Your task to perform on an android device: search for starred emails in the gmail app Image 0: 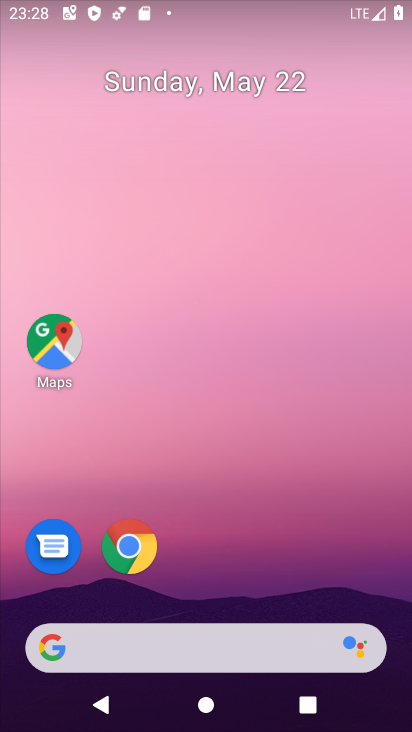
Step 0: drag from (190, 573) to (231, 51)
Your task to perform on an android device: search for starred emails in the gmail app Image 1: 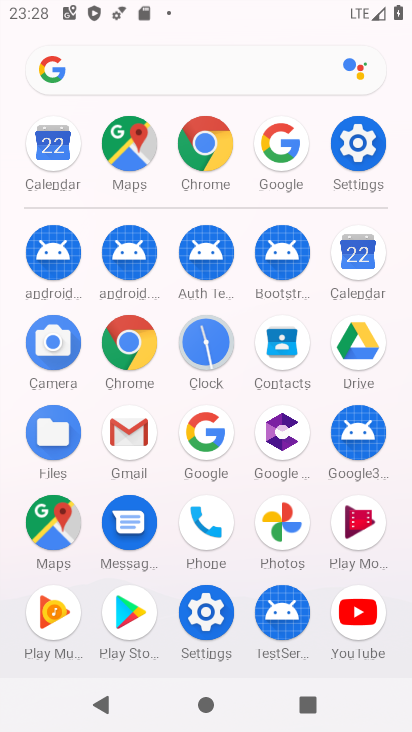
Step 1: click (109, 423)
Your task to perform on an android device: search for starred emails in the gmail app Image 2: 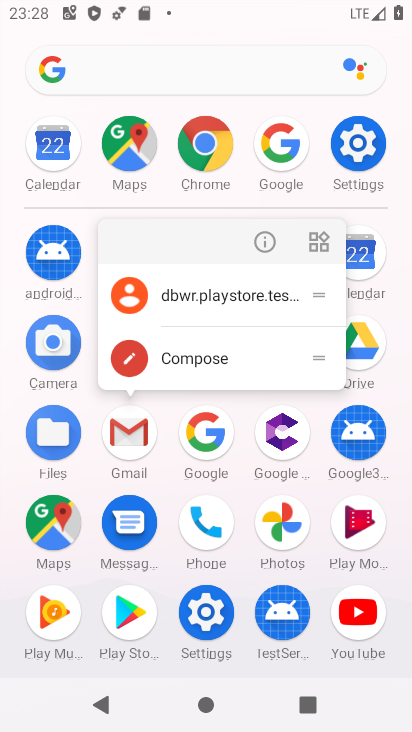
Step 2: click (260, 238)
Your task to perform on an android device: search for starred emails in the gmail app Image 3: 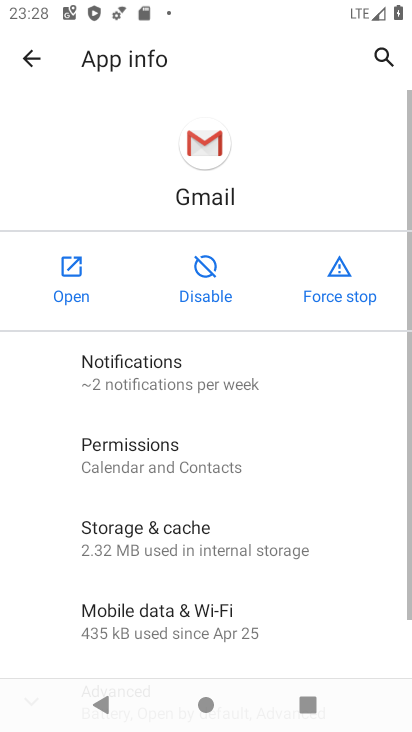
Step 3: click (80, 271)
Your task to perform on an android device: search for starred emails in the gmail app Image 4: 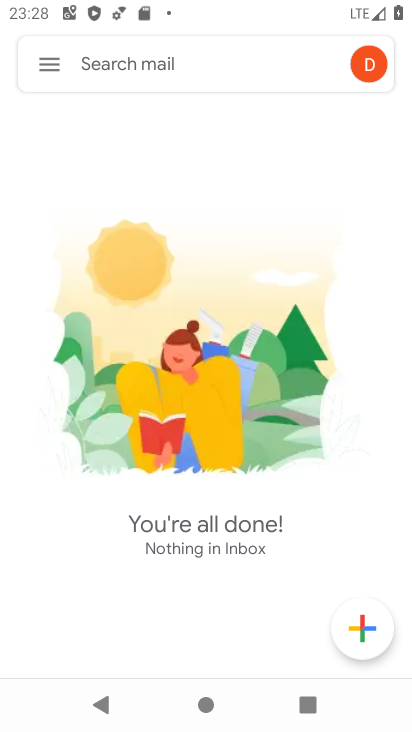
Step 4: drag from (209, 674) to (295, 255)
Your task to perform on an android device: search for starred emails in the gmail app Image 5: 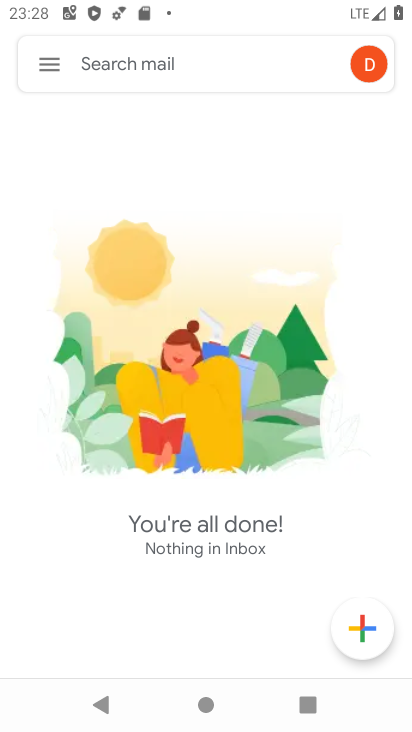
Step 5: drag from (207, 553) to (211, 132)
Your task to perform on an android device: search for starred emails in the gmail app Image 6: 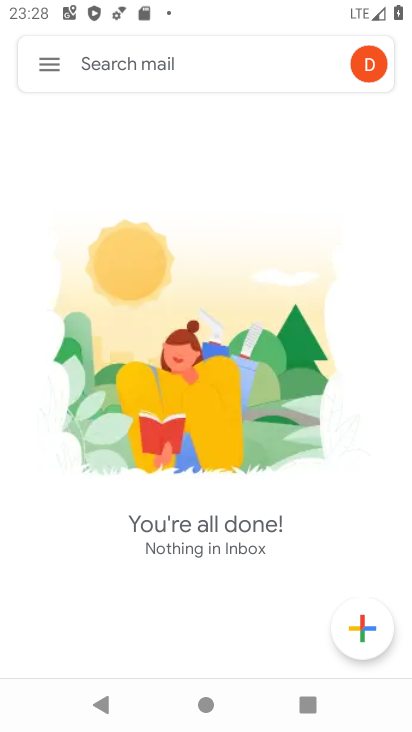
Step 6: click (48, 65)
Your task to perform on an android device: search for starred emails in the gmail app Image 7: 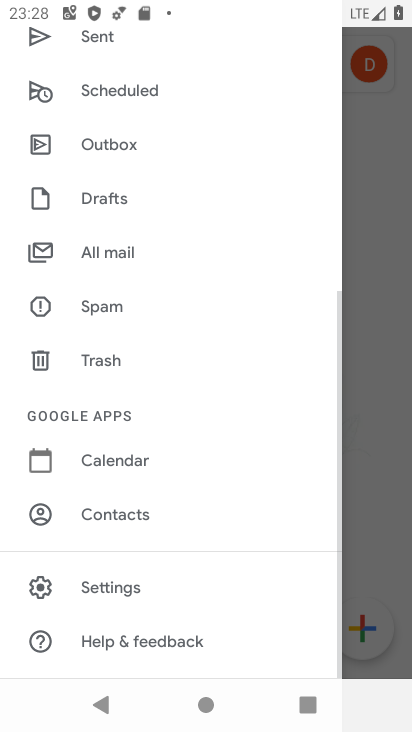
Step 7: drag from (199, 539) to (198, 108)
Your task to perform on an android device: search for starred emails in the gmail app Image 8: 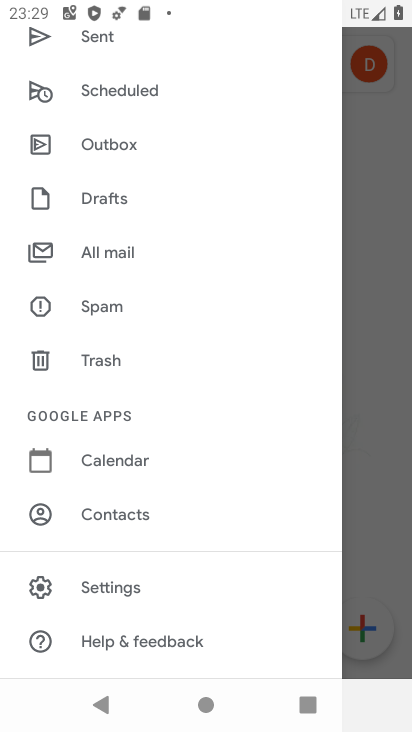
Step 8: drag from (134, 566) to (134, 193)
Your task to perform on an android device: search for starred emails in the gmail app Image 9: 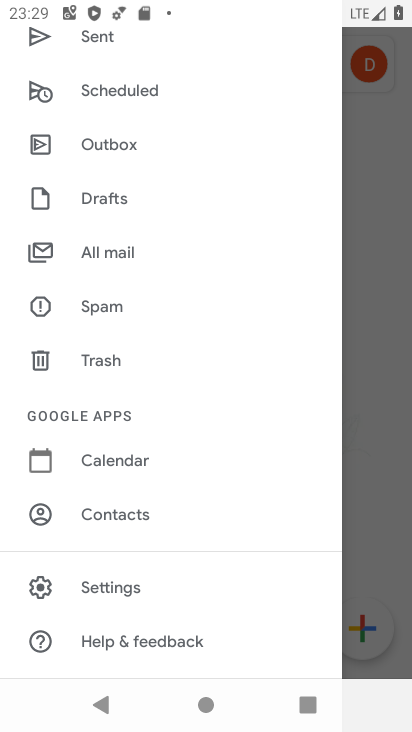
Step 9: drag from (198, 123) to (227, 591)
Your task to perform on an android device: search for starred emails in the gmail app Image 10: 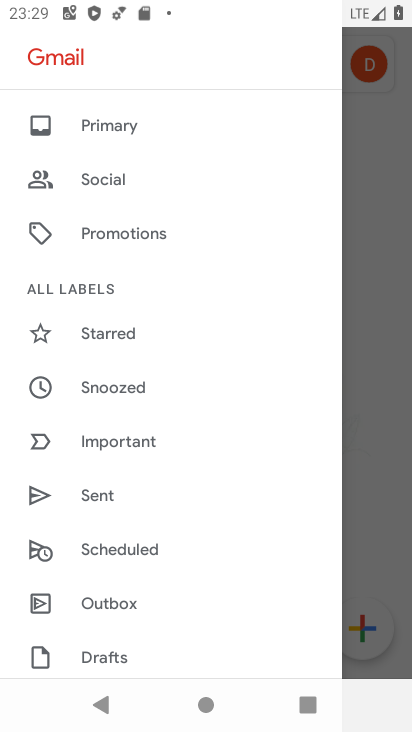
Step 10: click (146, 333)
Your task to perform on an android device: search for starred emails in the gmail app Image 11: 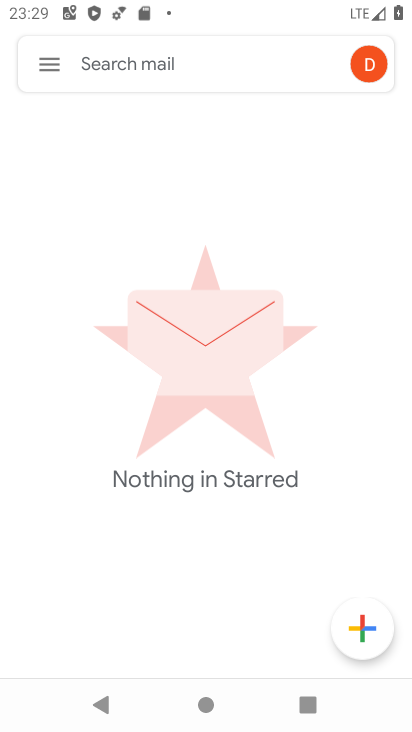
Step 11: drag from (196, 523) to (191, 87)
Your task to perform on an android device: search for starred emails in the gmail app Image 12: 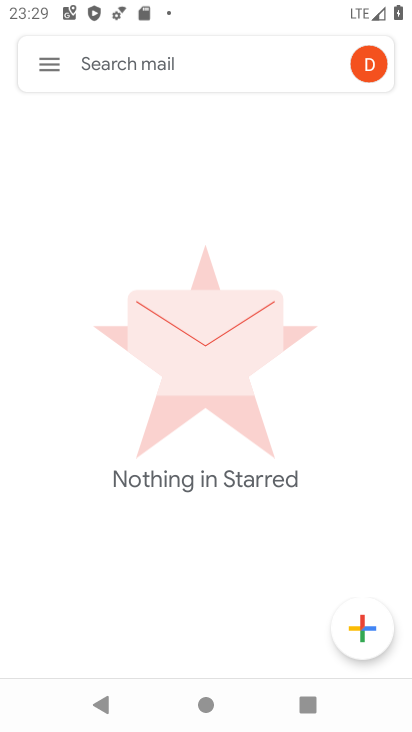
Step 12: drag from (218, 471) to (211, 162)
Your task to perform on an android device: search for starred emails in the gmail app Image 13: 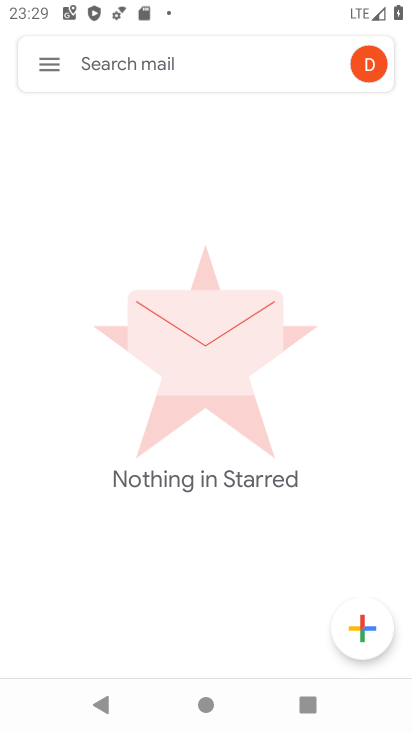
Step 13: drag from (201, 195) to (239, 471)
Your task to perform on an android device: search for starred emails in the gmail app Image 14: 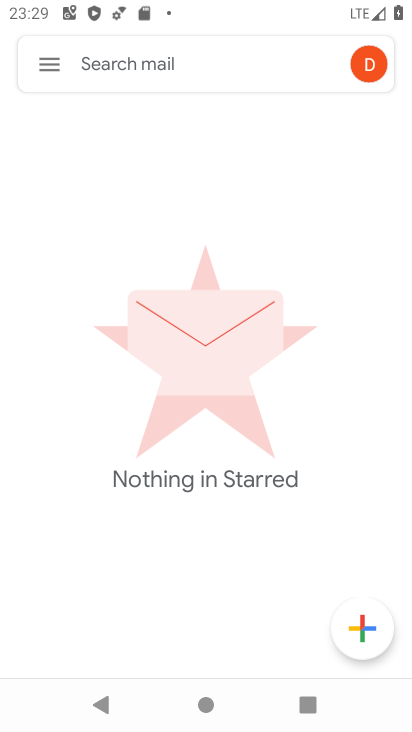
Step 14: drag from (199, 450) to (197, 166)
Your task to perform on an android device: search for starred emails in the gmail app Image 15: 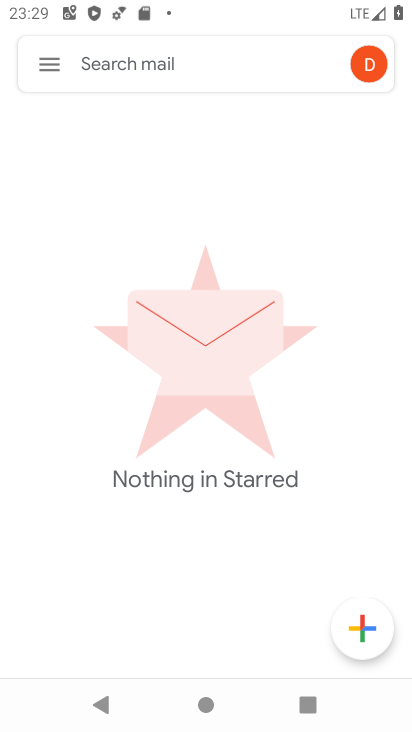
Step 15: drag from (242, 514) to (242, 251)
Your task to perform on an android device: search for starred emails in the gmail app Image 16: 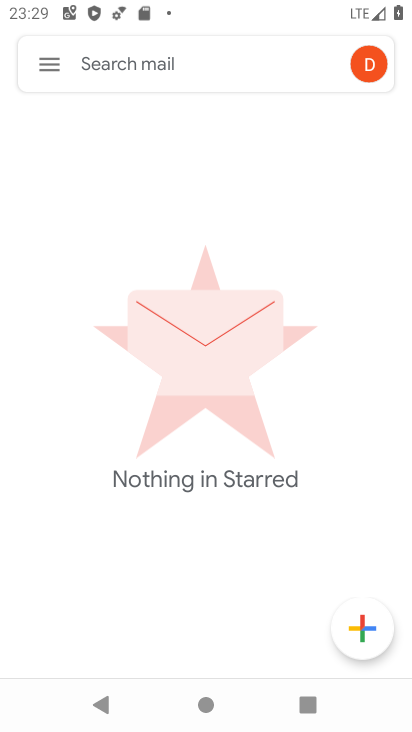
Step 16: click (39, 62)
Your task to perform on an android device: search for starred emails in the gmail app Image 17: 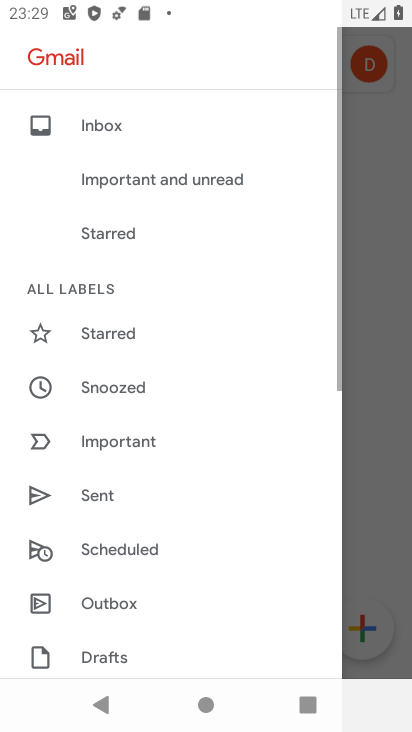
Step 17: click (128, 331)
Your task to perform on an android device: search for starred emails in the gmail app Image 18: 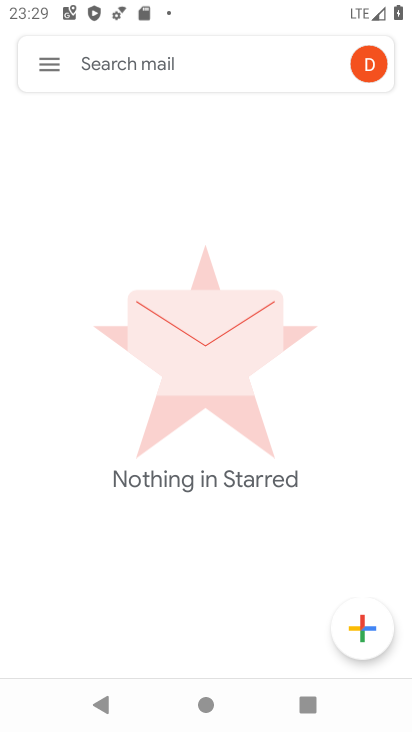
Step 18: task complete